Your task to perform on an android device: Open the phone app and click the voicemail tab. Image 0: 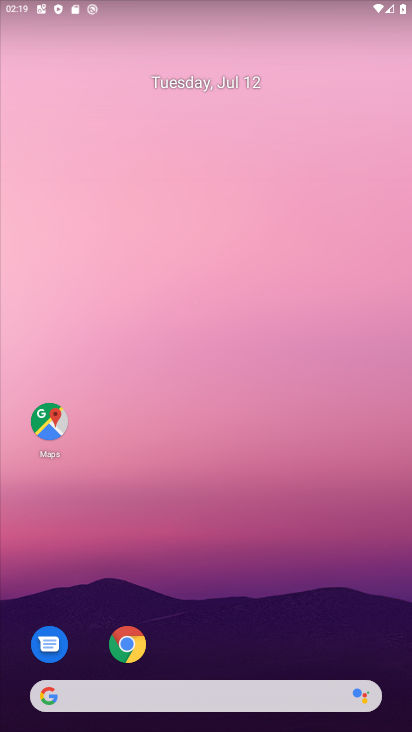
Step 0: drag from (231, 665) to (207, 186)
Your task to perform on an android device: Open the phone app and click the voicemail tab. Image 1: 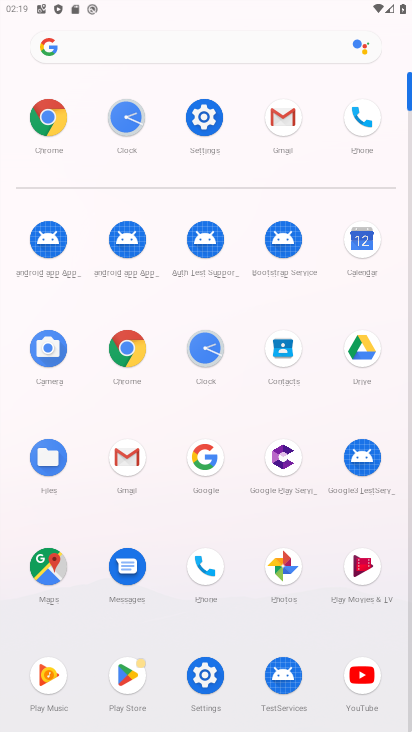
Step 1: click (199, 579)
Your task to perform on an android device: Open the phone app and click the voicemail tab. Image 2: 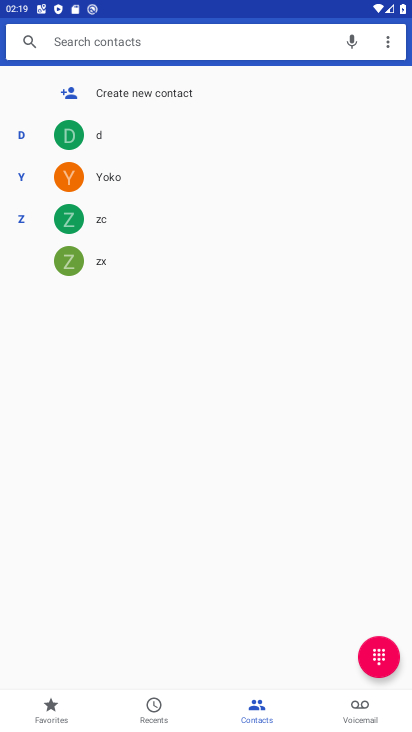
Step 2: click (343, 706)
Your task to perform on an android device: Open the phone app and click the voicemail tab. Image 3: 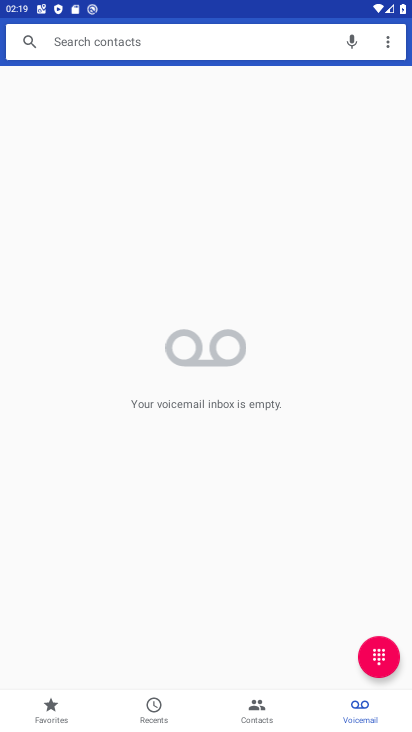
Step 3: task complete